Your task to perform on an android device: See recent photos Image 0: 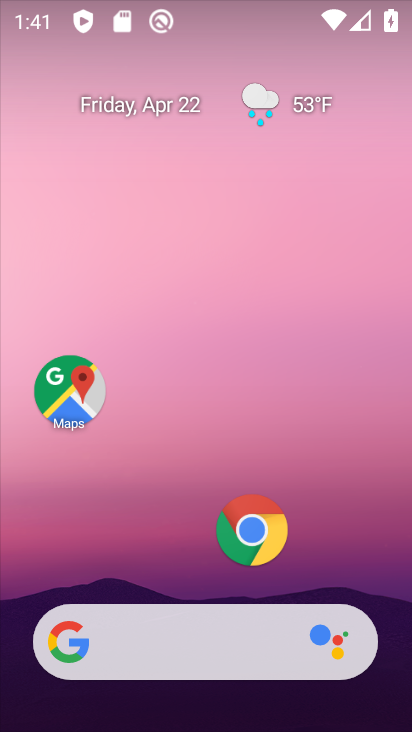
Step 0: drag from (146, 642) to (273, 272)
Your task to perform on an android device: See recent photos Image 1: 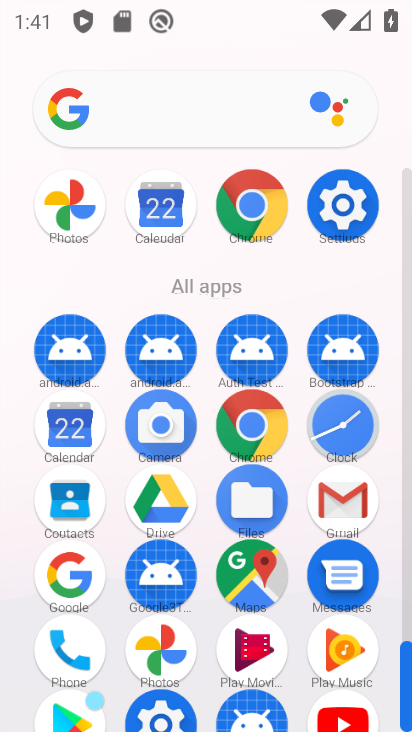
Step 1: click (176, 637)
Your task to perform on an android device: See recent photos Image 2: 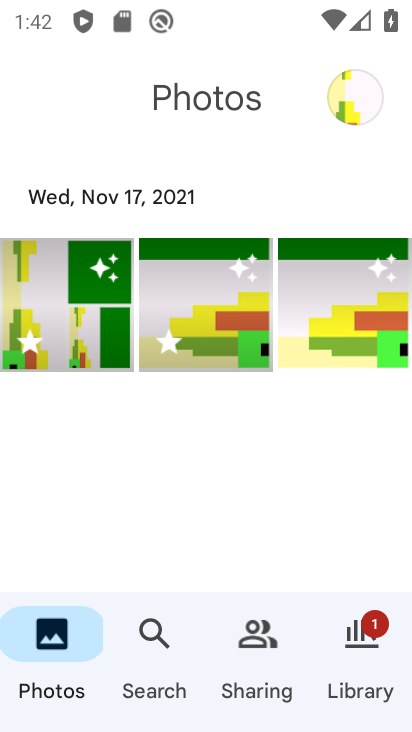
Step 2: task complete